Your task to perform on an android device: manage bookmarks in the chrome app Image 0: 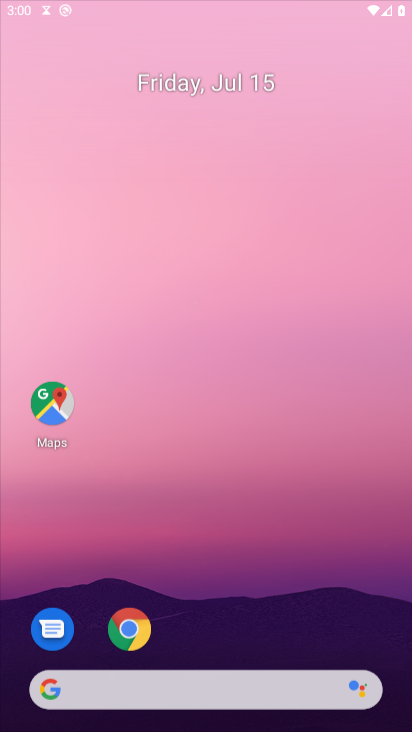
Step 0: press home button
Your task to perform on an android device: manage bookmarks in the chrome app Image 1: 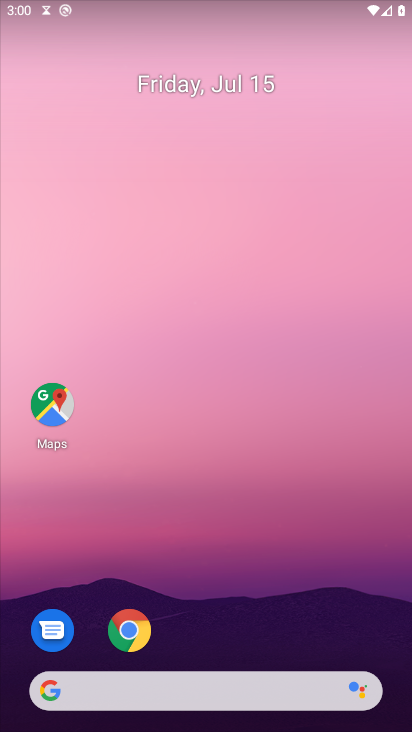
Step 1: drag from (236, 639) to (235, 124)
Your task to perform on an android device: manage bookmarks in the chrome app Image 2: 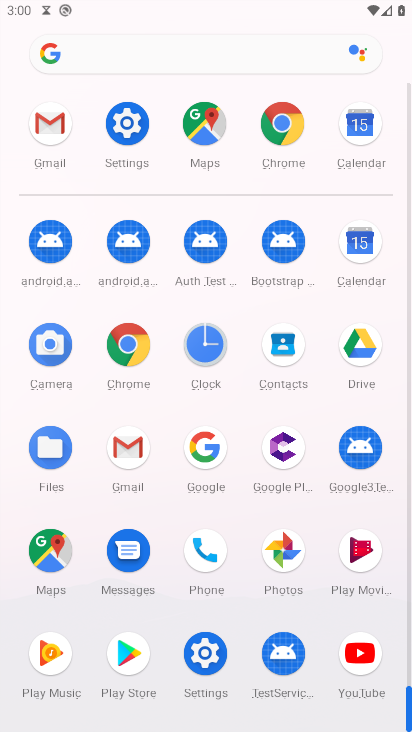
Step 2: click (280, 138)
Your task to perform on an android device: manage bookmarks in the chrome app Image 3: 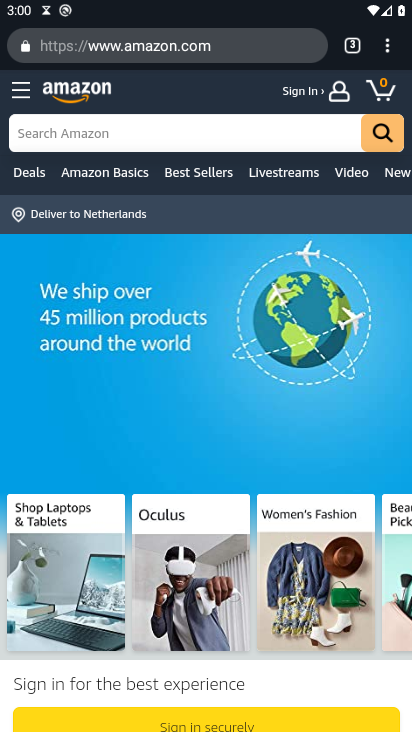
Step 3: drag from (390, 48) to (235, 174)
Your task to perform on an android device: manage bookmarks in the chrome app Image 4: 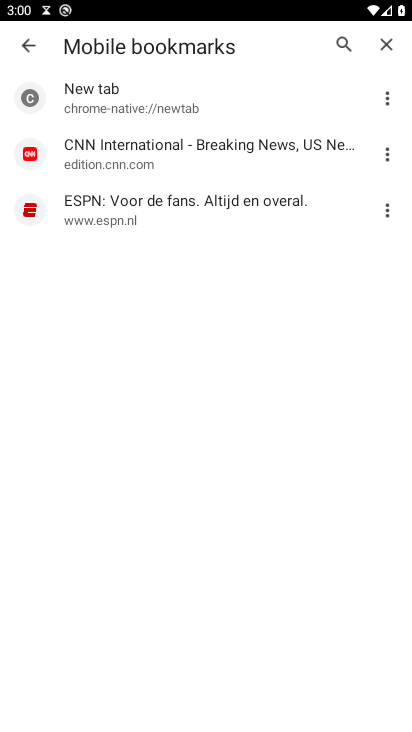
Step 4: click (384, 150)
Your task to perform on an android device: manage bookmarks in the chrome app Image 5: 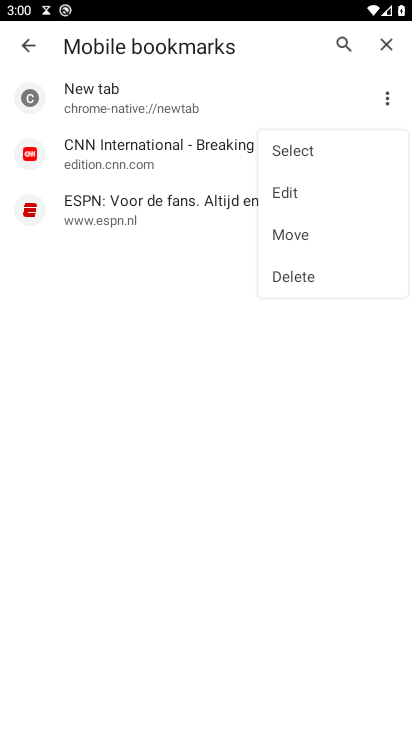
Step 5: click (283, 187)
Your task to perform on an android device: manage bookmarks in the chrome app Image 6: 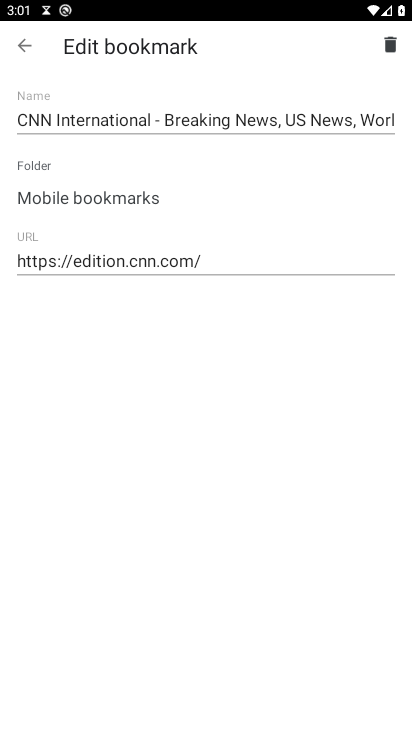
Step 6: task complete